Your task to perform on an android device: delete browsing data in the chrome app Image 0: 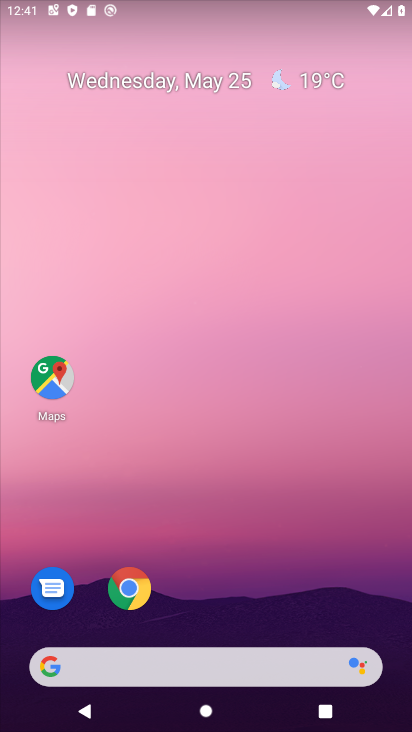
Step 0: click (133, 609)
Your task to perform on an android device: delete browsing data in the chrome app Image 1: 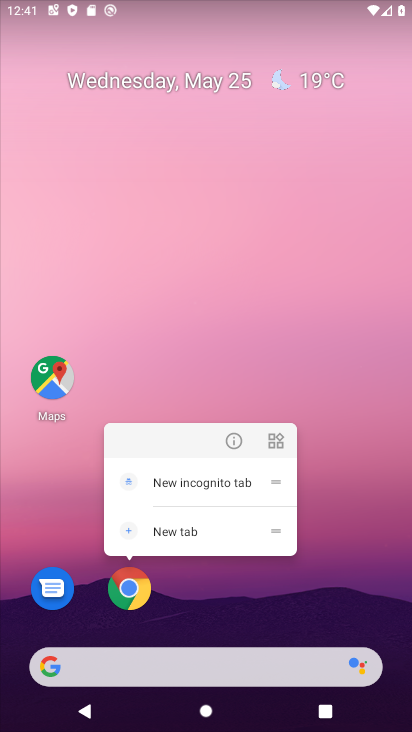
Step 1: click (131, 615)
Your task to perform on an android device: delete browsing data in the chrome app Image 2: 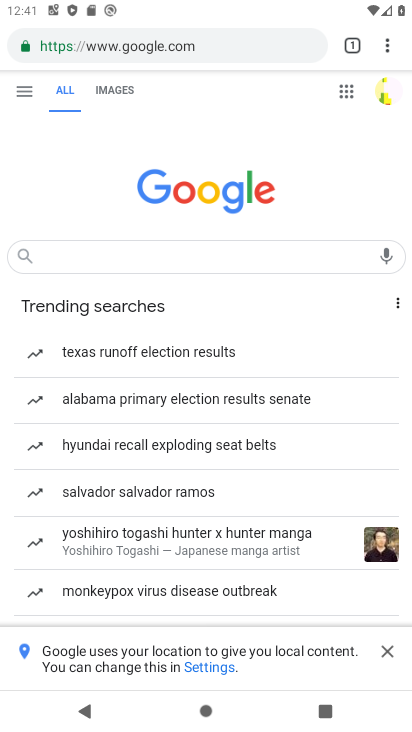
Step 2: drag from (387, 40) to (258, 511)
Your task to perform on an android device: delete browsing data in the chrome app Image 3: 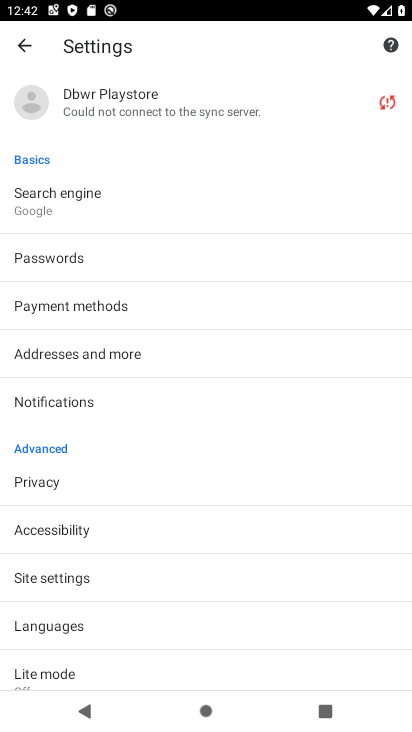
Step 3: drag from (204, 610) to (258, 321)
Your task to perform on an android device: delete browsing data in the chrome app Image 4: 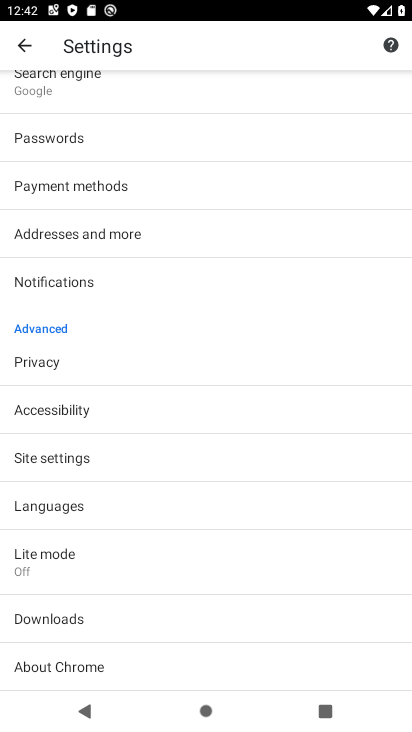
Step 4: click (121, 374)
Your task to perform on an android device: delete browsing data in the chrome app Image 5: 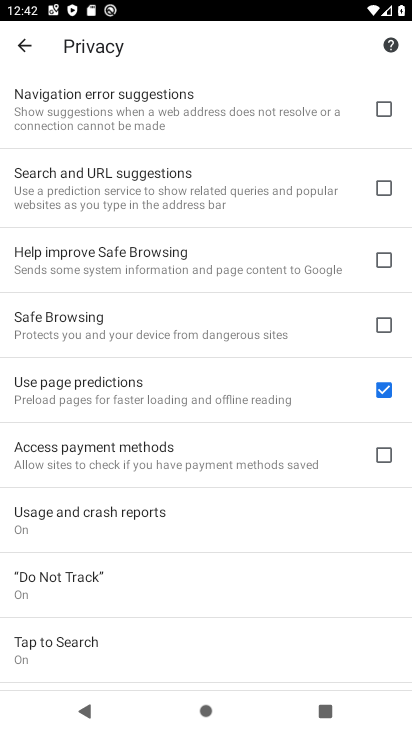
Step 5: drag from (147, 629) to (220, 229)
Your task to perform on an android device: delete browsing data in the chrome app Image 6: 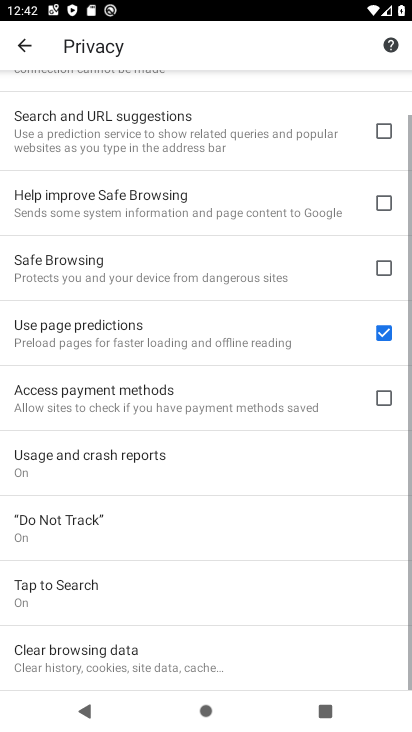
Step 6: click (118, 648)
Your task to perform on an android device: delete browsing data in the chrome app Image 7: 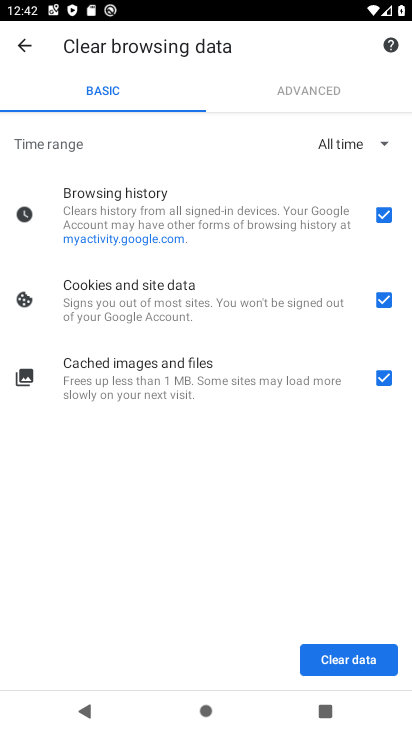
Step 7: click (359, 661)
Your task to perform on an android device: delete browsing data in the chrome app Image 8: 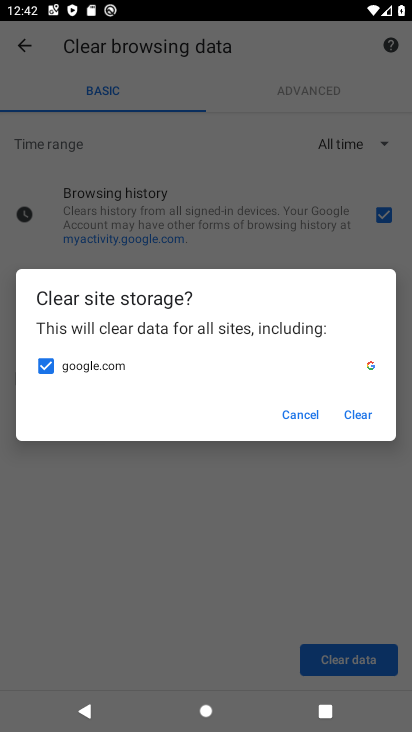
Step 8: click (350, 413)
Your task to perform on an android device: delete browsing data in the chrome app Image 9: 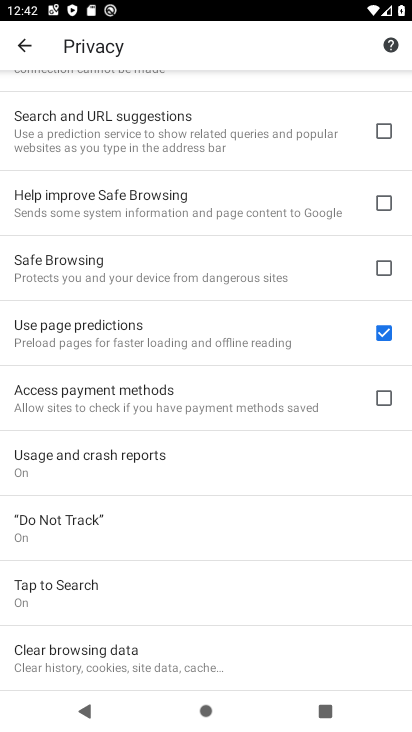
Step 9: task complete